Your task to perform on an android device: turn off wifi Image 0: 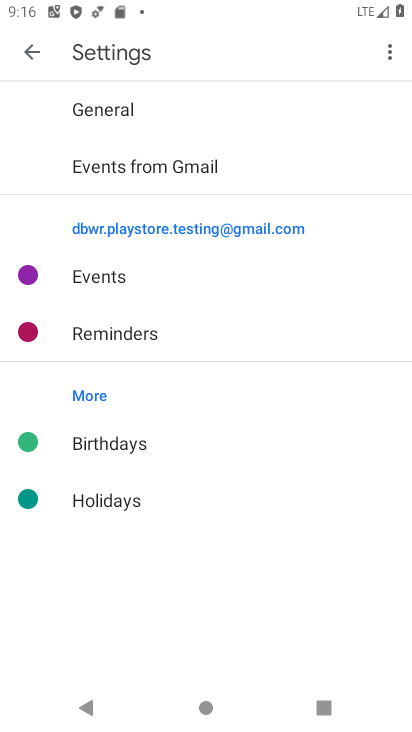
Step 0: press home button
Your task to perform on an android device: turn off wifi Image 1: 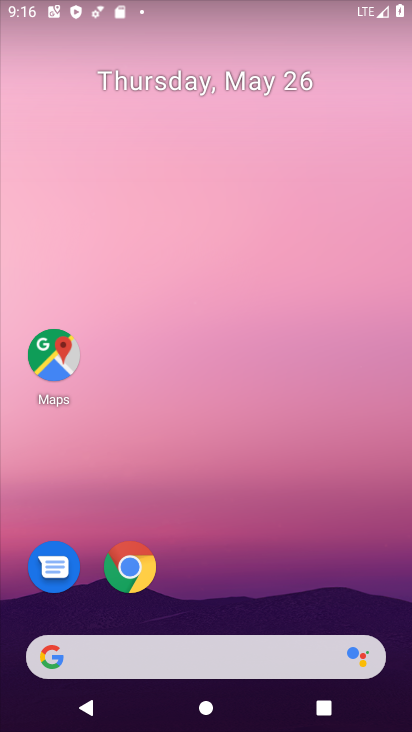
Step 1: drag from (224, 533) to (194, 38)
Your task to perform on an android device: turn off wifi Image 2: 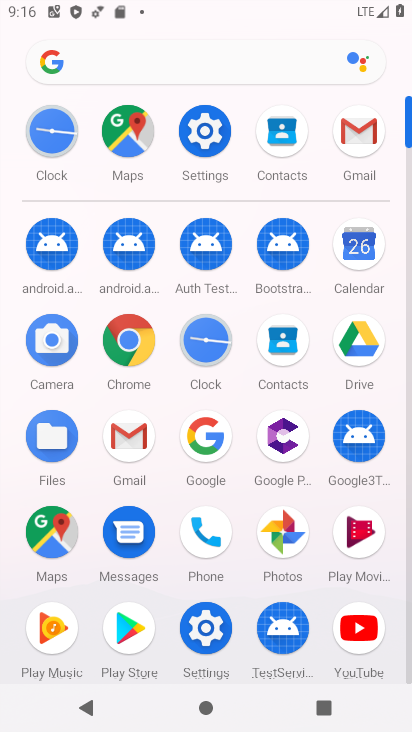
Step 2: click (222, 149)
Your task to perform on an android device: turn off wifi Image 3: 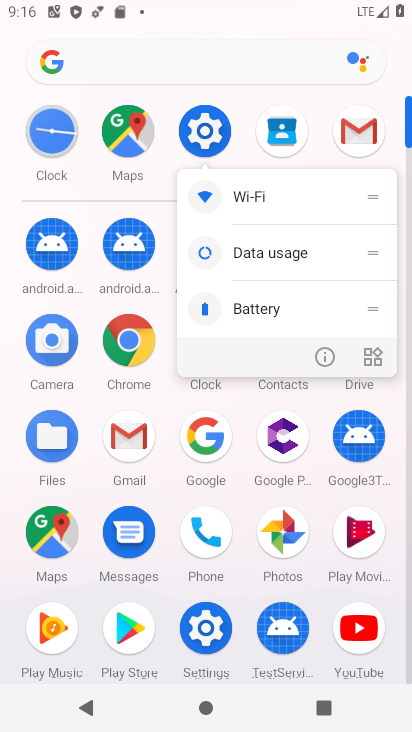
Step 3: click (206, 124)
Your task to perform on an android device: turn off wifi Image 4: 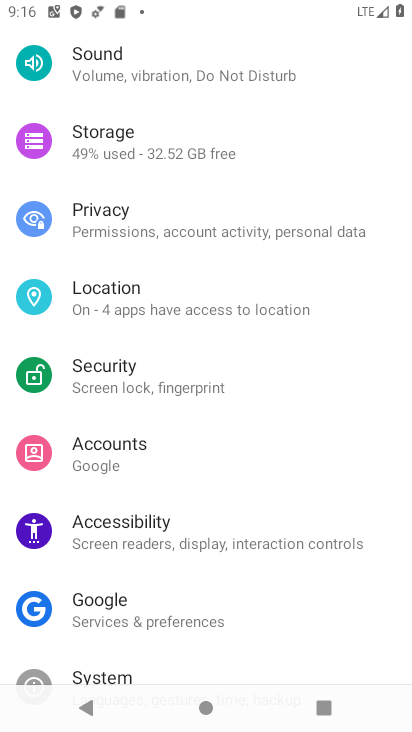
Step 4: drag from (225, 124) to (285, 523)
Your task to perform on an android device: turn off wifi Image 5: 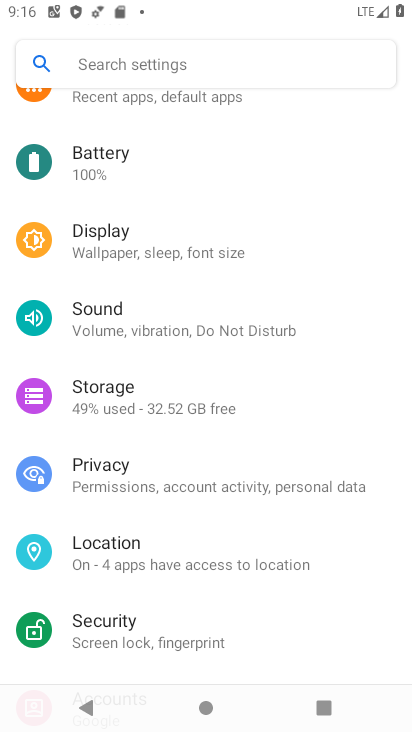
Step 5: drag from (333, 146) to (327, 584)
Your task to perform on an android device: turn off wifi Image 6: 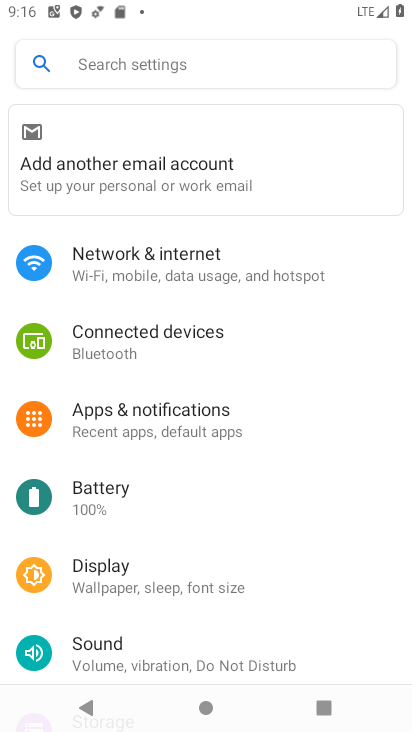
Step 6: click (267, 261)
Your task to perform on an android device: turn off wifi Image 7: 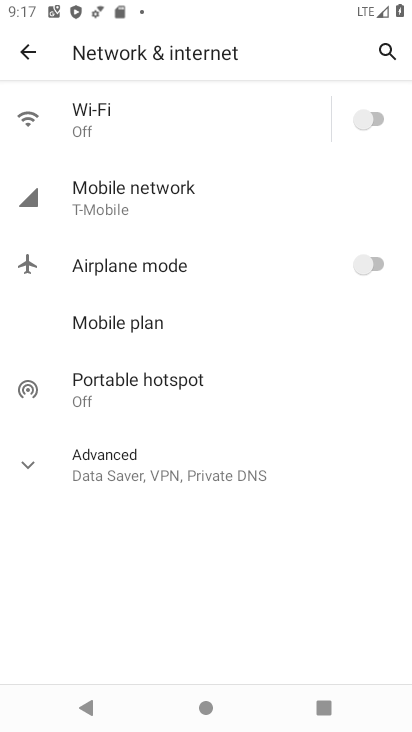
Step 7: task complete